Your task to perform on an android device: change notifications settings Image 0: 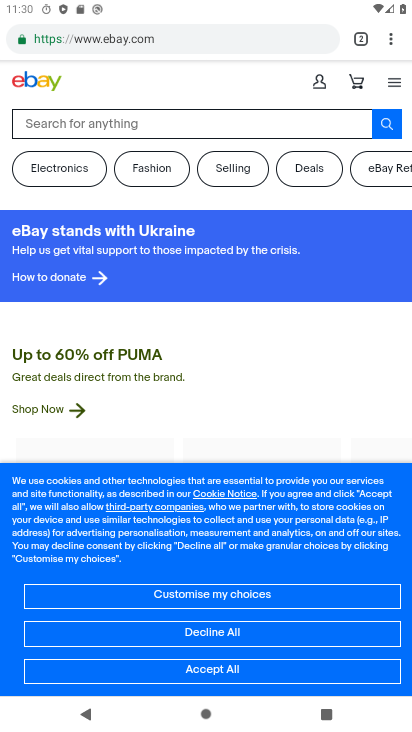
Step 0: press home button
Your task to perform on an android device: change notifications settings Image 1: 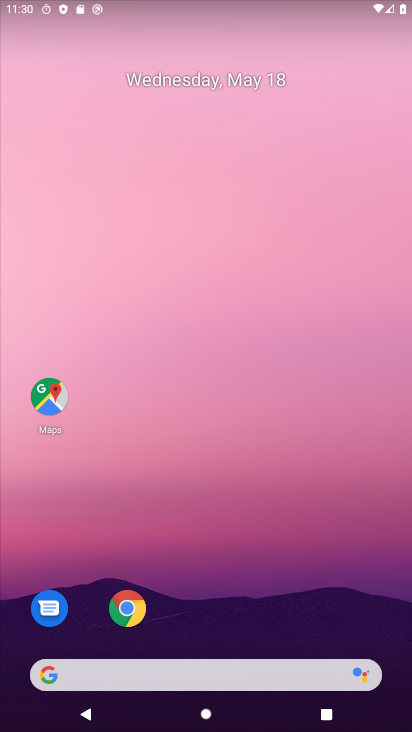
Step 1: drag from (253, 625) to (273, 66)
Your task to perform on an android device: change notifications settings Image 2: 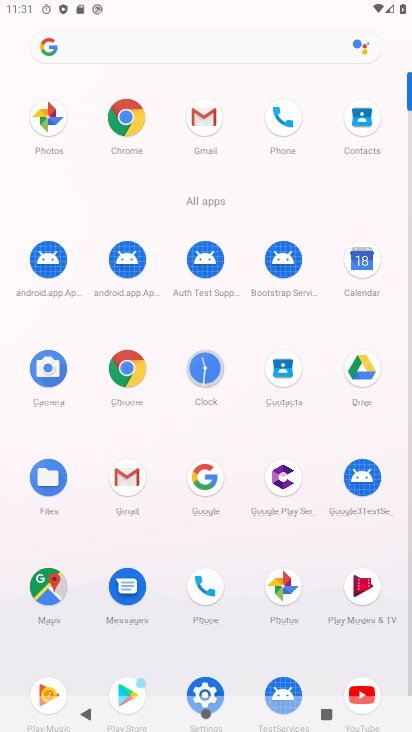
Step 2: click (204, 686)
Your task to perform on an android device: change notifications settings Image 3: 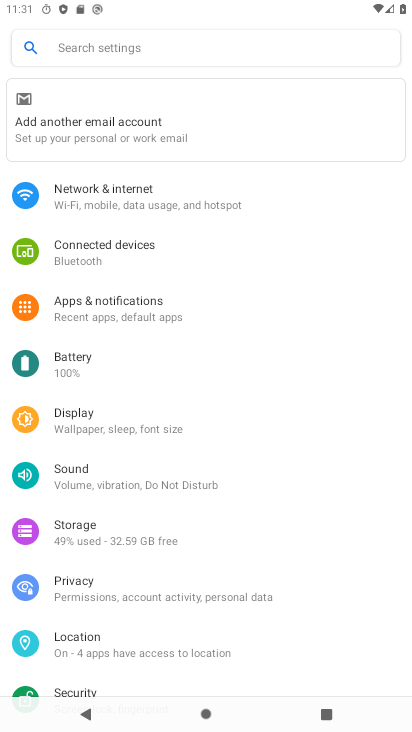
Step 3: click (251, 324)
Your task to perform on an android device: change notifications settings Image 4: 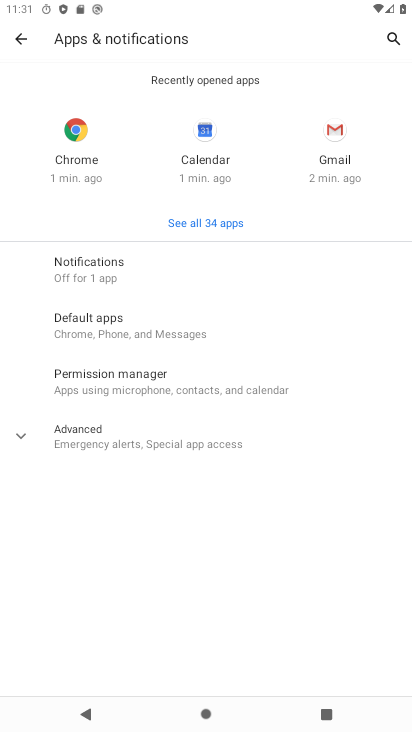
Step 4: click (245, 283)
Your task to perform on an android device: change notifications settings Image 5: 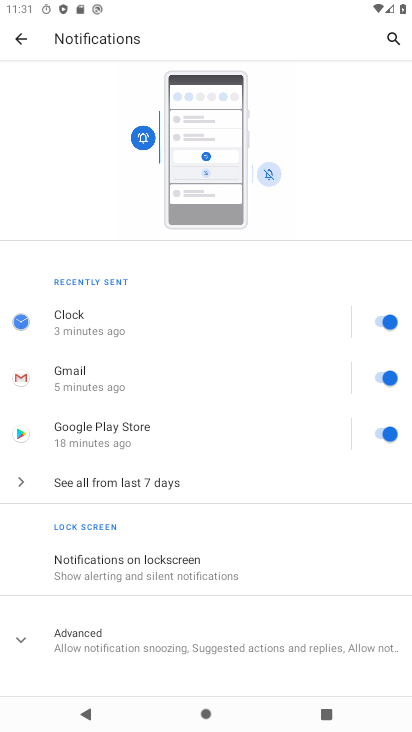
Step 5: click (276, 646)
Your task to perform on an android device: change notifications settings Image 6: 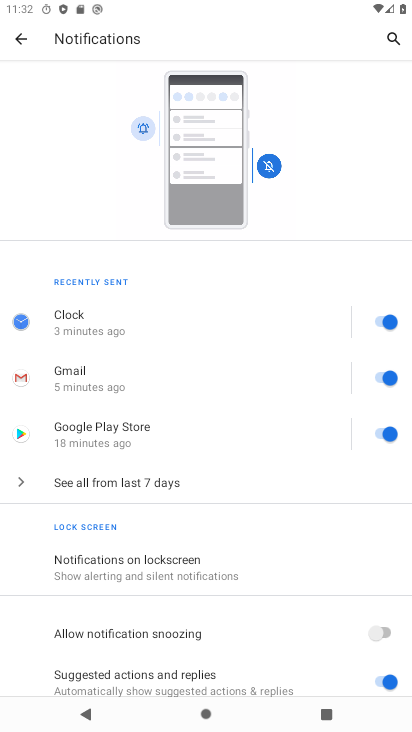
Step 6: drag from (268, 652) to (251, 470)
Your task to perform on an android device: change notifications settings Image 7: 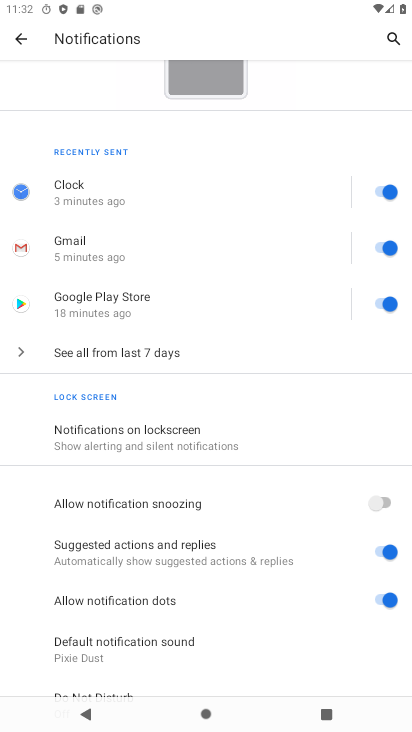
Step 7: click (373, 498)
Your task to perform on an android device: change notifications settings Image 8: 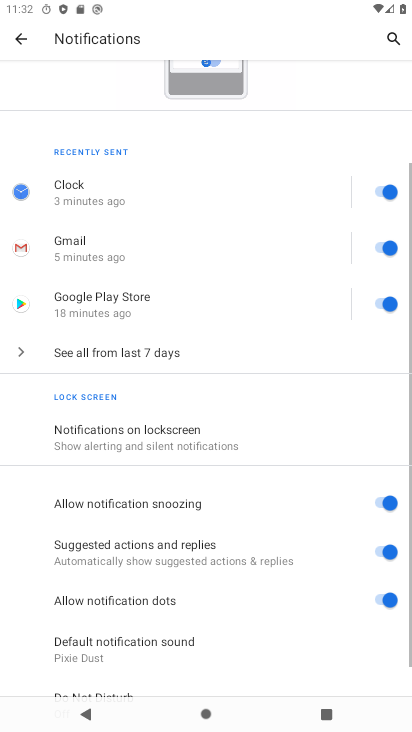
Step 8: click (386, 541)
Your task to perform on an android device: change notifications settings Image 9: 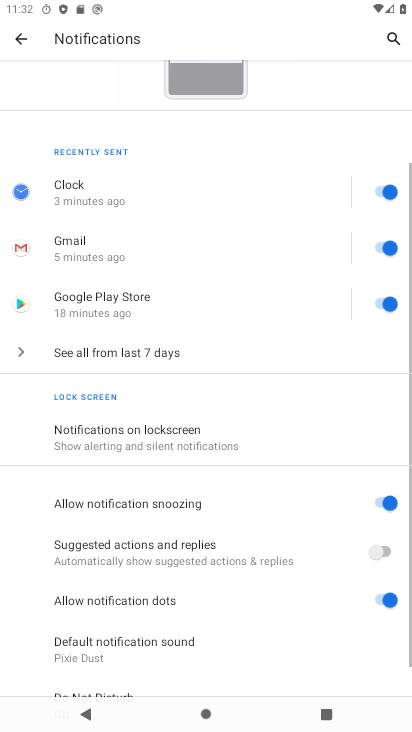
Step 9: click (385, 593)
Your task to perform on an android device: change notifications settings Image 10: 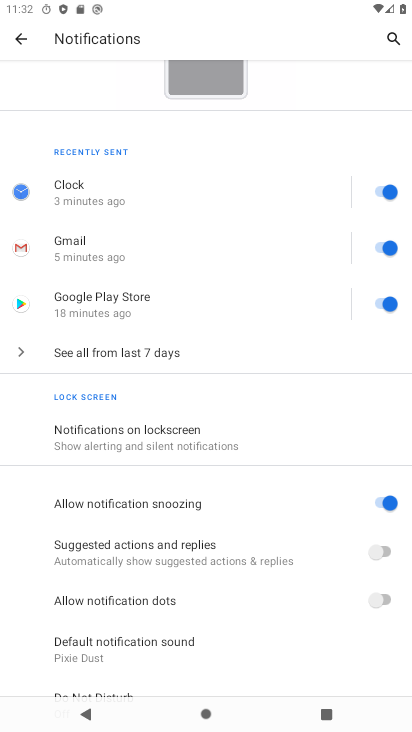
Step 10: task complete